Your task to perform on an android device: turn off notifications in google photos Image 0: 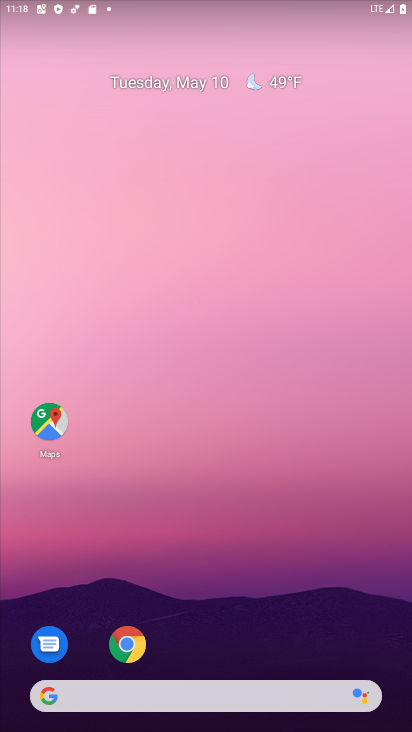
Step 0: drag from (244, 641) to (252, 287)
Your task to perform on an android device: turn off notifications in google photos Image 1: 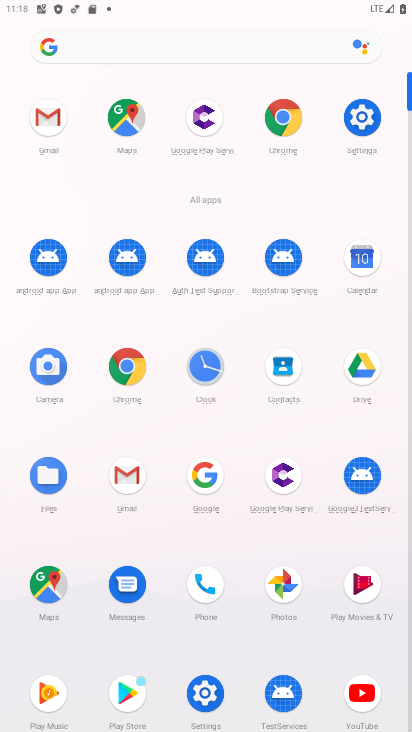
Step 1: click (288, 571)
Your task to perform on an android device: turn off notifications in google photos Image 2: 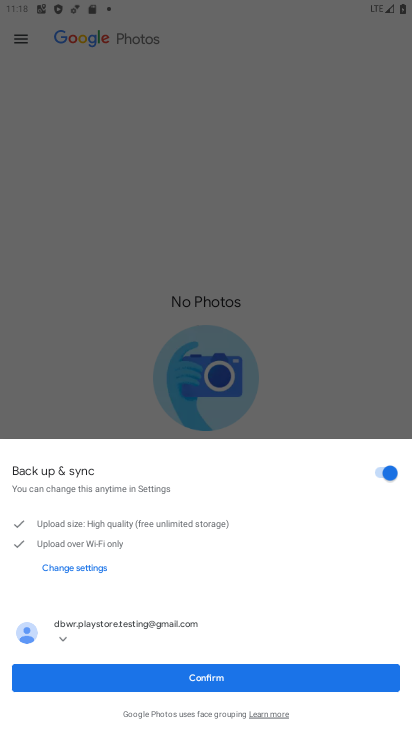
Step 2: click (208, 672)
Your task to perform on an android device: turn off notifications in google photos Image 3: 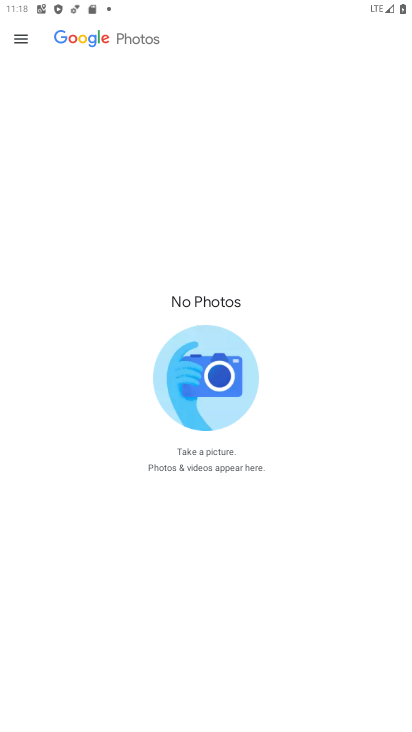
Step 3: click (18, 37)
Your task to perform on an android device: turn off notifications in google photos Image 4: 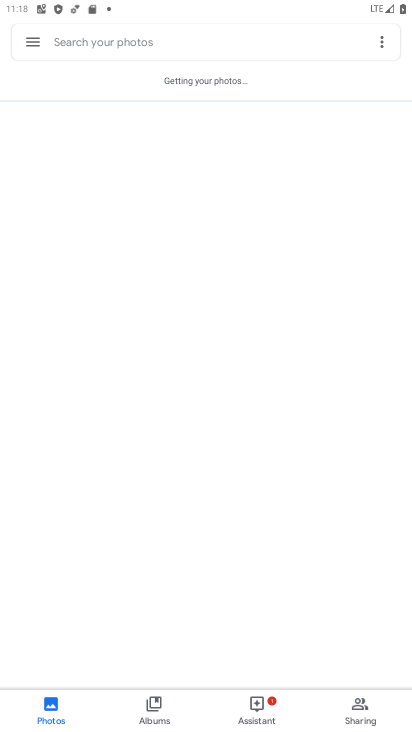
Step 4: click (31, 48)
Your task to perform on an android device: turn off notifications in google photos Image 5: 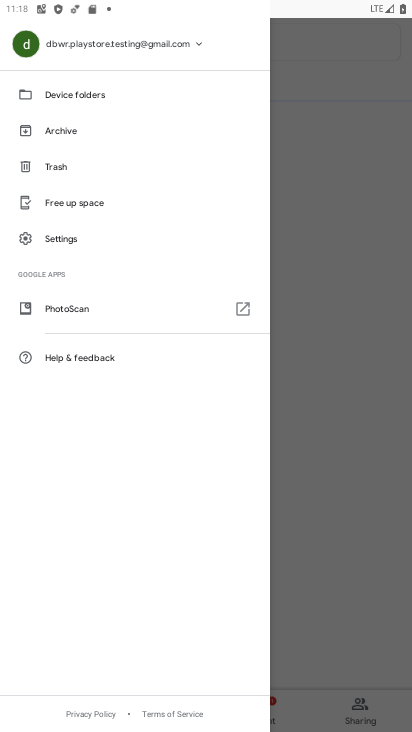
Step 5: click (73, 241)
Your task to perform on an android device: turn off notifications in google photos Image 6: 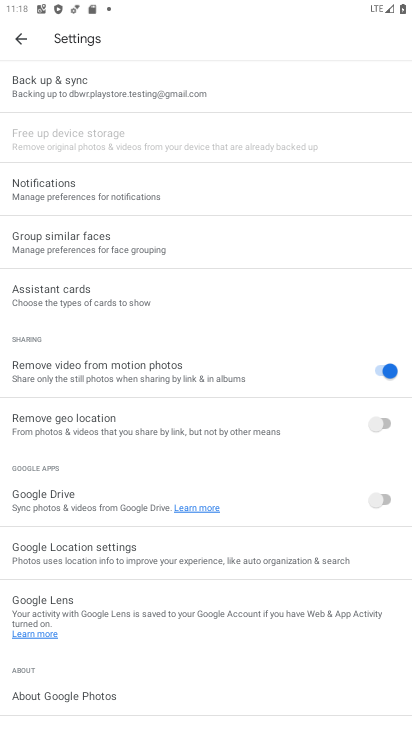
Step 6: click (119, 206)
Your task to perform on an android device: turn off notifications in google photos Image 7: 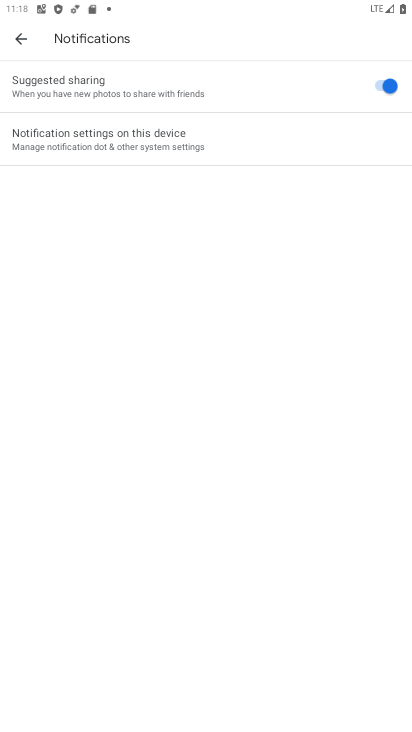
Step 7: click (135, 157)
Your task to perform on an android device: turn off notifications in google photos Image 8: 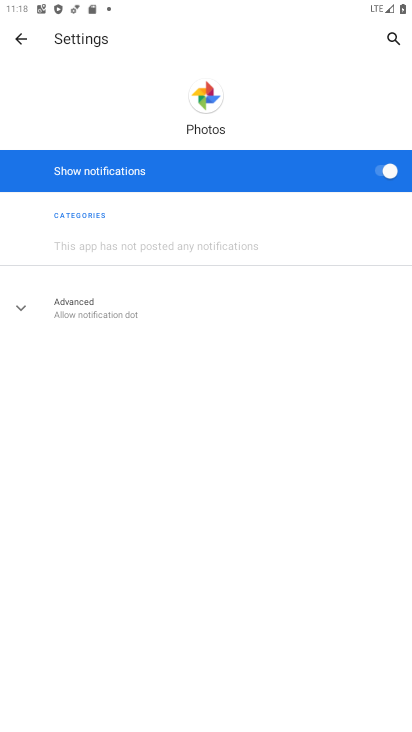
Step 8: click (376, 174)
Your task to perform on an android device: turn off notifications in google photos Image 9: 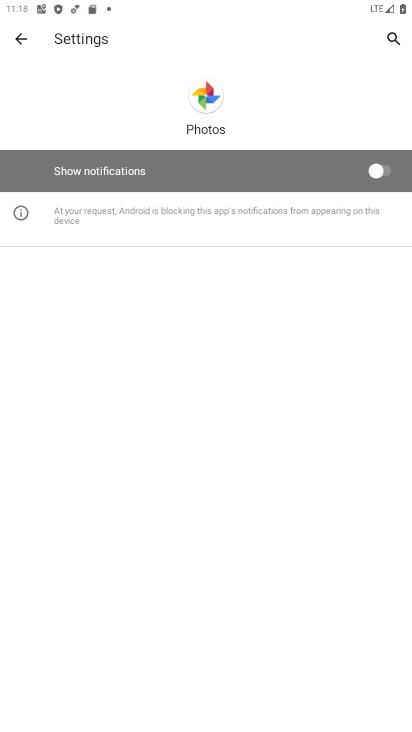
Step 9: task complete